Your task to perform on an android device: install app "Mercado Libre" Image 0: 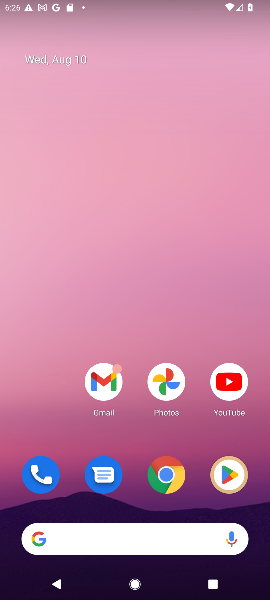
Step 0: drag from (151, 525) to (141, 242)
Your task to perform on an android device: install app "Mercado Libre" Image 1: 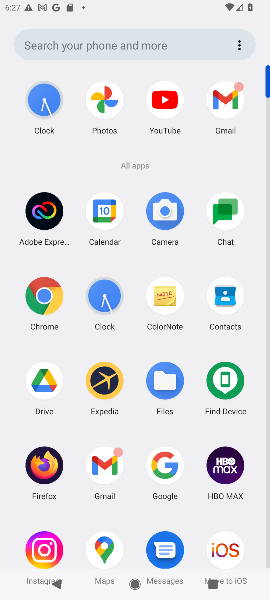
Step 1: drag from (199, 534) to (190, 284)
Your task to perform on an android device: install app "Mercado Libre" Image 2: 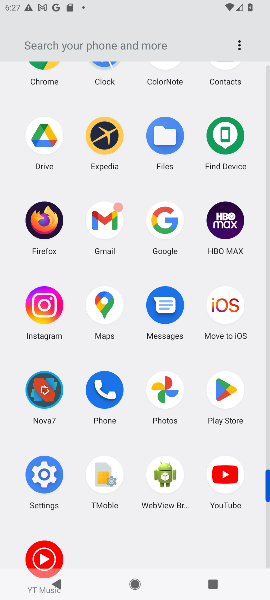
Step 2: click (220, 396)
Your task to perform on an android device: install app "Mercado Libre" Image 3: 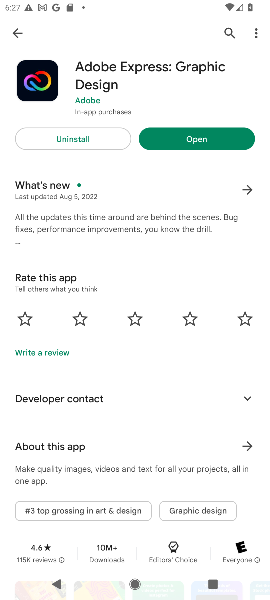
Step 3: click (230, 28)
Your task to perform on an android device: install app "Mercado Libre" Image 4: 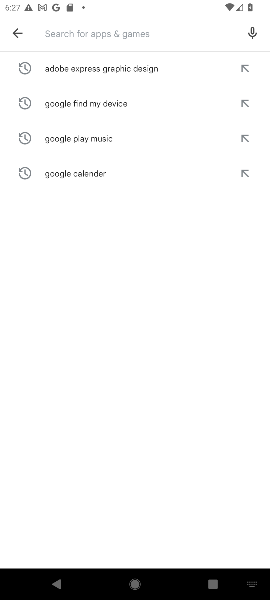
Step 4: type "Mercado Libre"
Your task to perform on an android device: install app "Mercado Libre" Image 5: 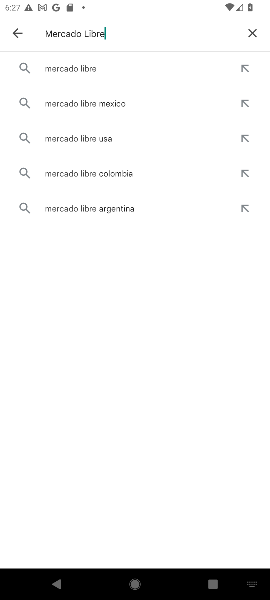
Step 5: click (65, 70)
Your task to perform on an android device: install app "Mercado Libre" Image 6: 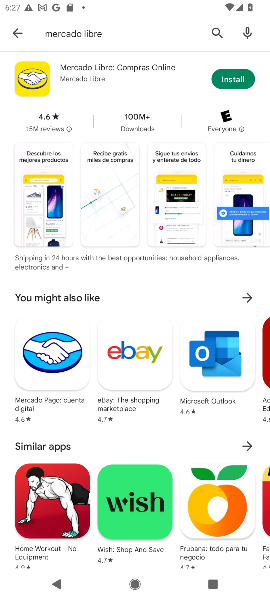
Step 6: click (231, 77)
Your task to perform on an android device: install app "Mercado Libre" Image 7: 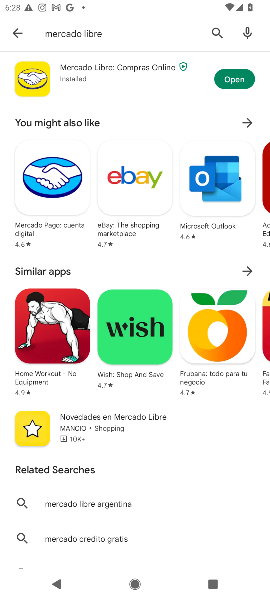
Step 7: click (248, 75)
Your task to perform on an android device: install app "Mercado Libre" Image 8: 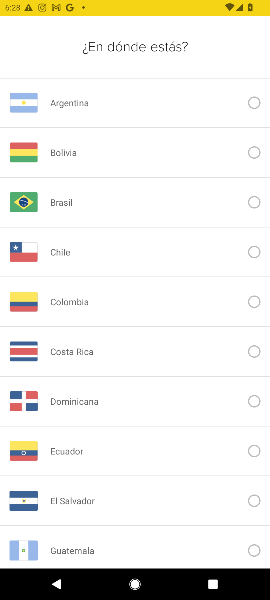
Step 8: task complete